Your task to perform on an android device: Open Chrome and go to settings Image 0: 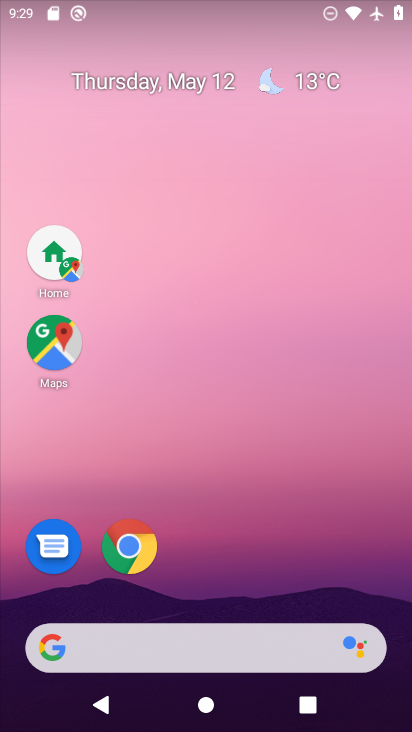
Step 0: drag from (174, 652) to (327, 133)
Your task to perform on an android device: Open Chrome and go to settings Image 1: 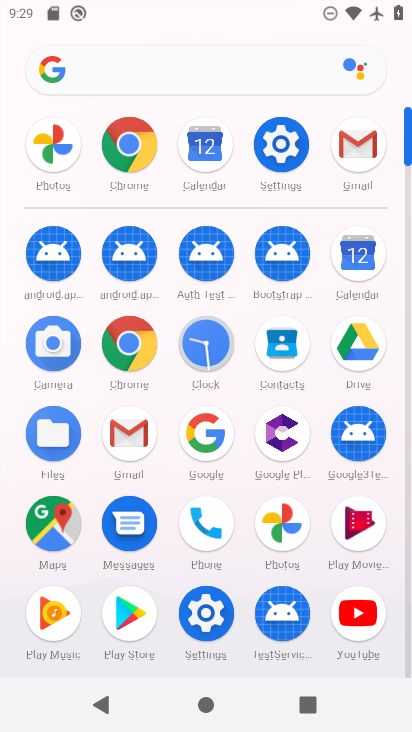
Step 1: click (136, 155)
Your task to perform on an android device: Open Chrome and go to settings Image 2: 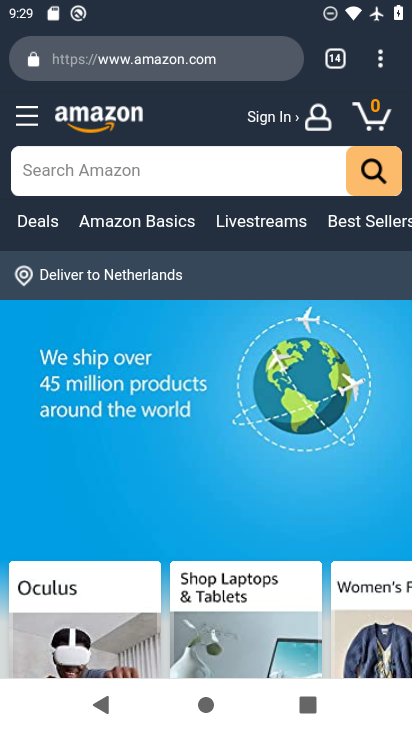
Step 2: task complete